Your task to perform on an android device: Open battery settings Image 0: 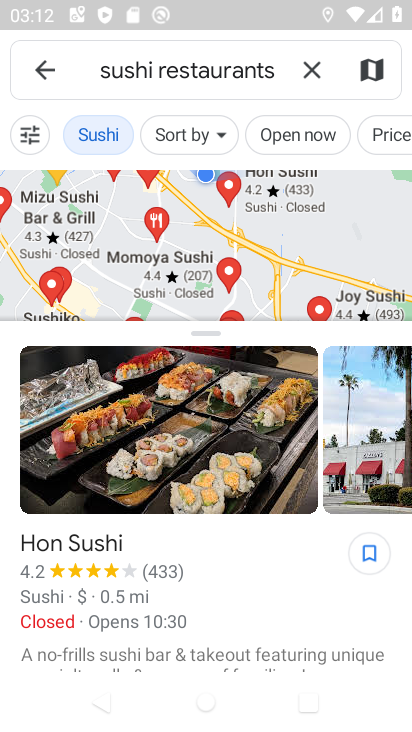
Step 0: press home button
Your task to perform on an android device: Open battery settings Image 1: 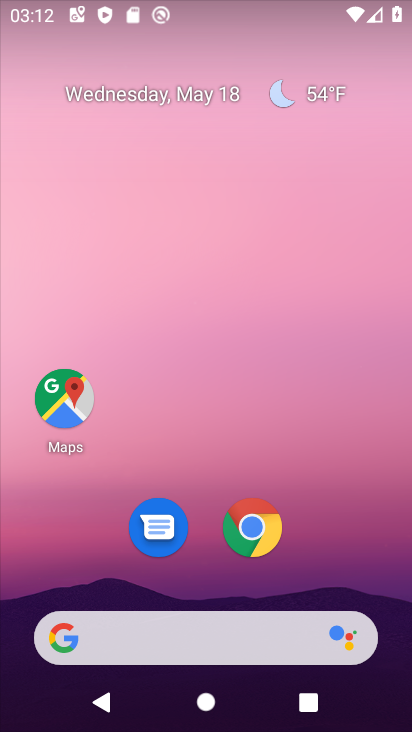
Step 1: drag from (189, 598) to (301, 12)
Your task to perform on an android device: Open battery settings Image 2: 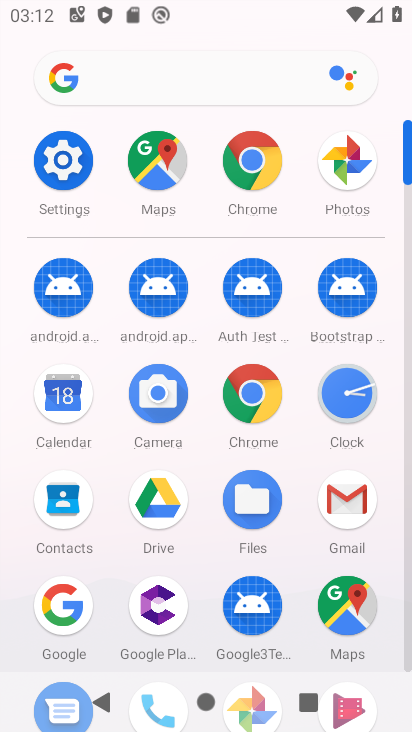
Step 2: click (55, 166)
Your task to perform on an android device: Open battery settings Image 3: 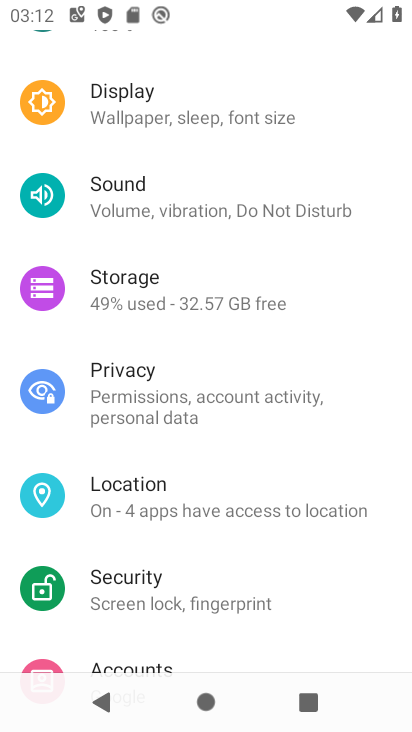
Step 3: drag from (128, 125) to (123, 442)
Your task to perform on an android device: Open battery settings Image 4: 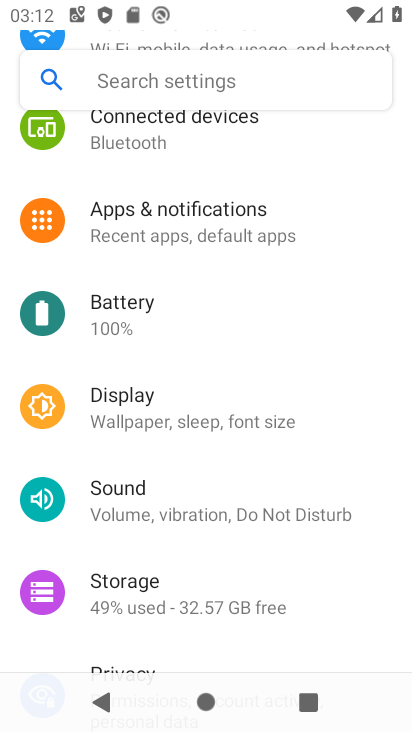
Step 4: click (142, 279)
Your task to perform on an android device: Open battery settings Image 5: 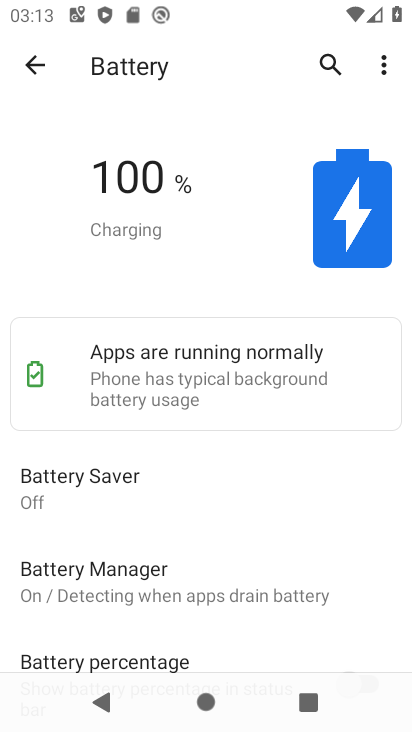
Step 5: task complete